Your task to perform on an android device: Open Chrome and go to settings Image 0: 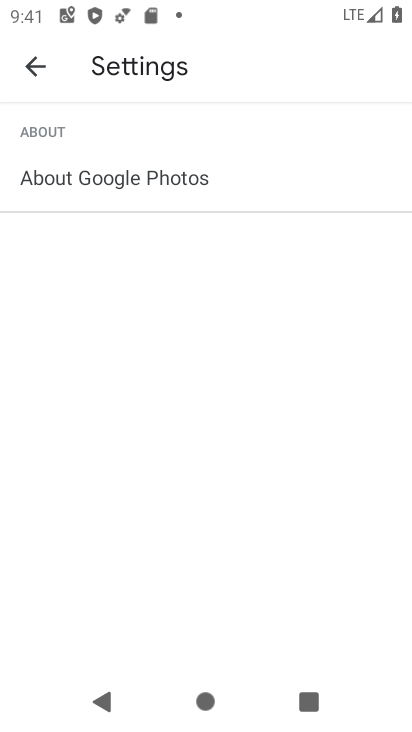
Step 0: press home button
Your task to perform on an android device: Open Chrome and go to settings Image 1: 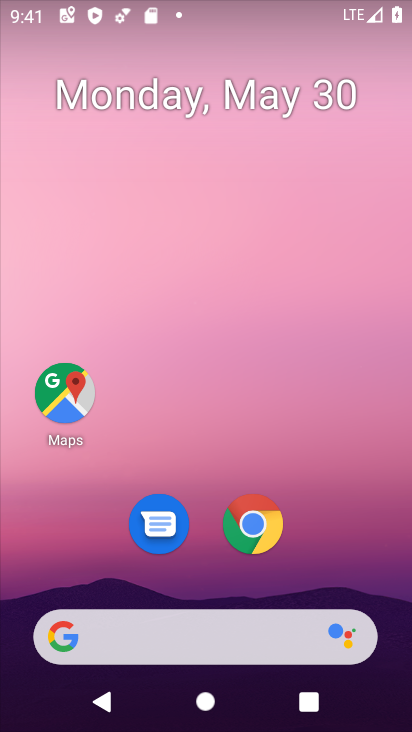
Step 1: click (257, 514)
Your task to perform on an android device: Open Chrome and go to settings Image 2: 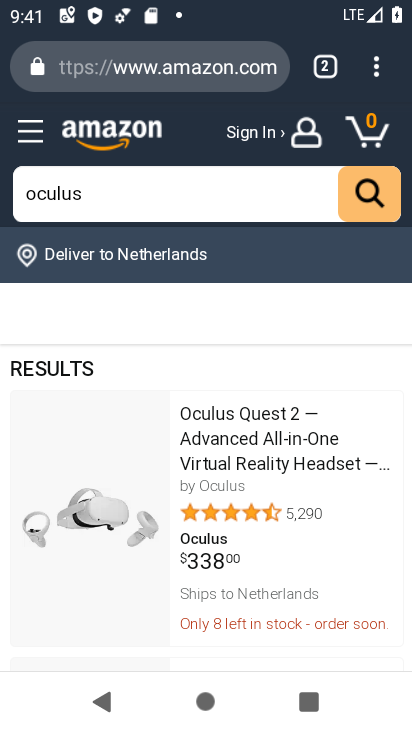
Step 2: click (368, 64)
Your task to perform on an android device: Open Chrome and go to settings Image 3: 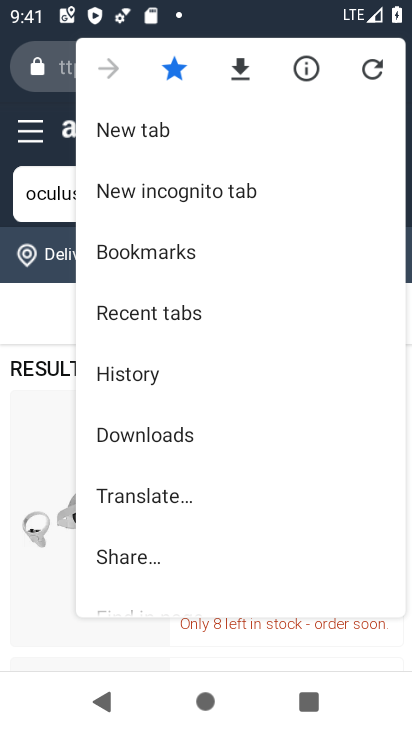
Step 3: drag from (278, 485) to (259, 123)
Your task to perform on an android device: Open Chrome and go to settings Image 4: 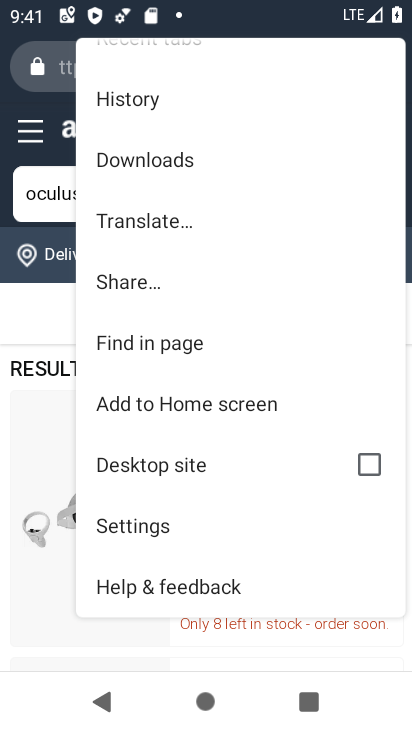
Step 4: click (180, 518)
Your task to perform on an android device: Open Chrome and go to settings Image 5: 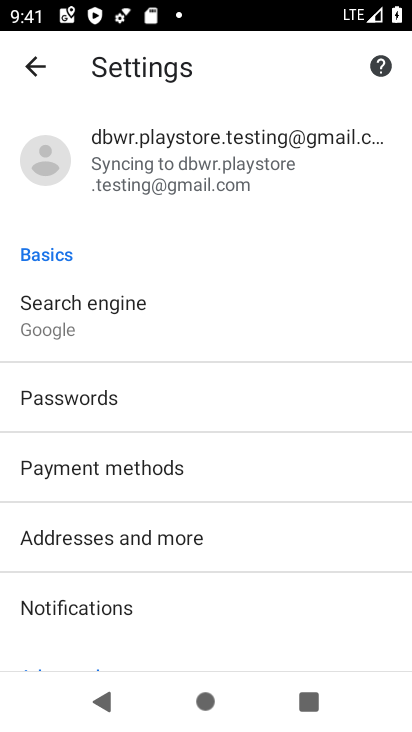
Step 5: task complete